Your task to perform on an android device: turn on sleep mode Image 0: 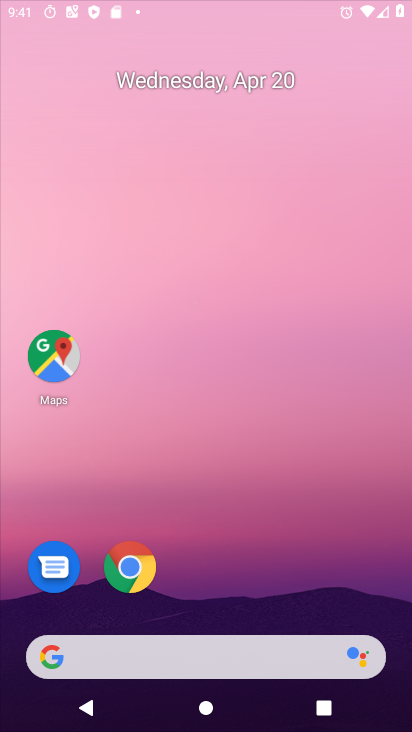
Step 0: drag from (221, 640) to (304, 159)
Your task to perform on an android device: turn on sleep mode Image 1: 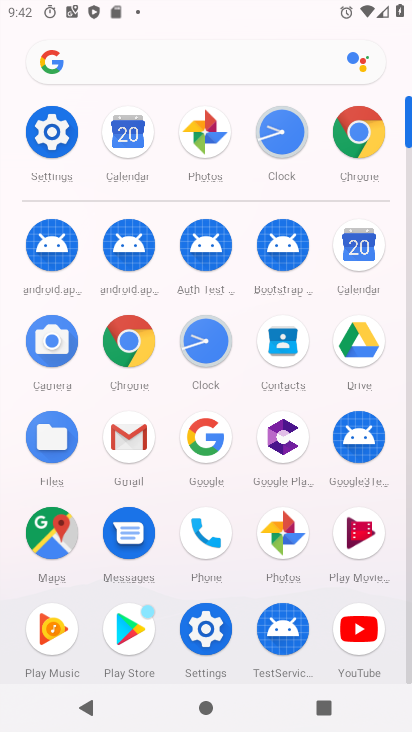
Step 1: click (61, 120)
Your task to perform on an android device: turn on sleep mode Image 2: 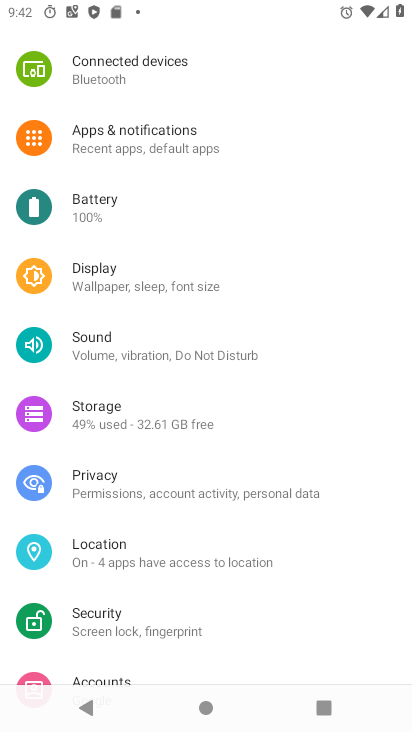
Step 2: task complete